Your task to perform on an android device: Open calendar and show me the third week of next month Image 0: 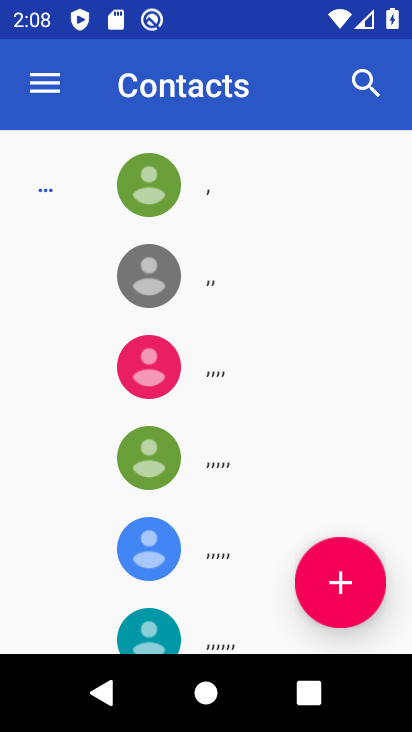
Step 0: press home button
Your task to perform on an android device: Open calendar and show me the third week of next month Image 1: 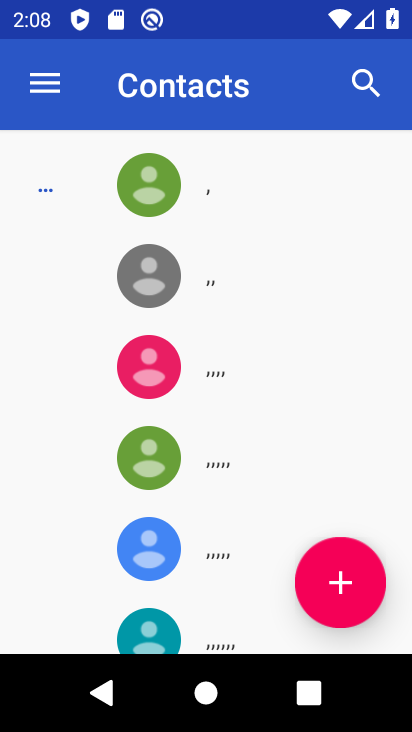
Step 1: press home button
Your task to perform on an android device: Open calendar and show me the third week of next month Image 2: 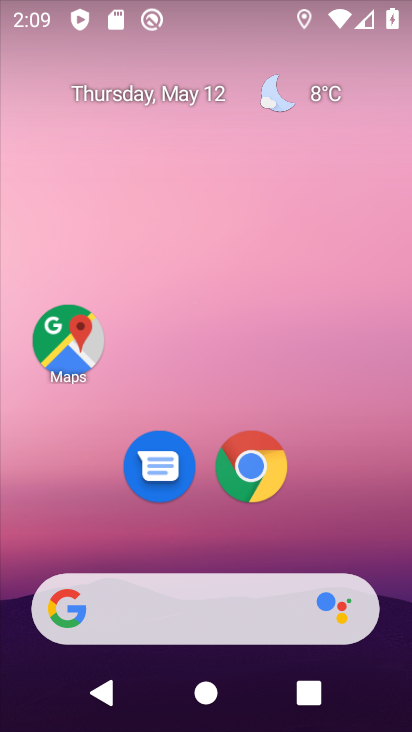
Step 2: drag from (347, 444) to (276, 142)
Your task to perform on an android device: Open calendar and show me the third week of next month Image 3: 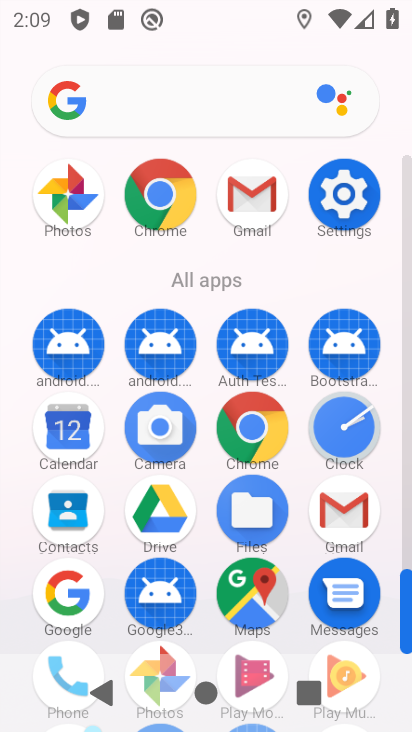
Step 3: drag from (207, 641) to (206, 176)
Your task to perform on an android device: Open calendar and show me the third week of next month Image 4: 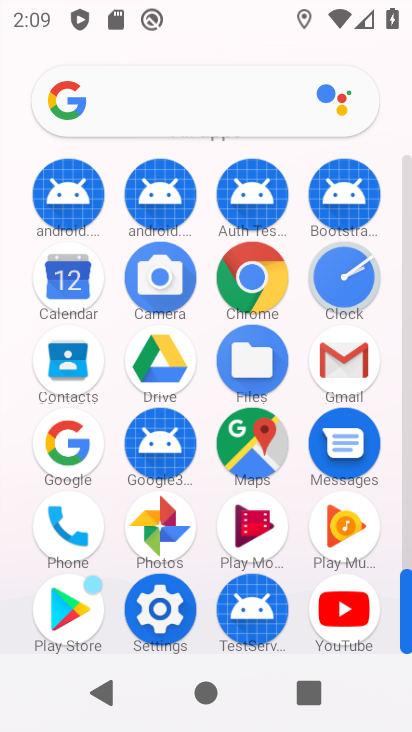
Step 4: click (64, 297)
Your task to perform on an android device: Open calendar and show me the third week of next month Image 5: 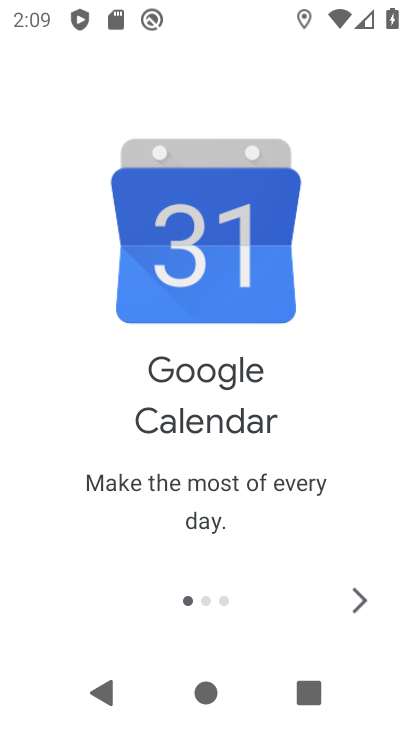
Step 5: click (363, 593)
Your task to perform on an android device: Open calendar and show me the third week of next month Image 6: 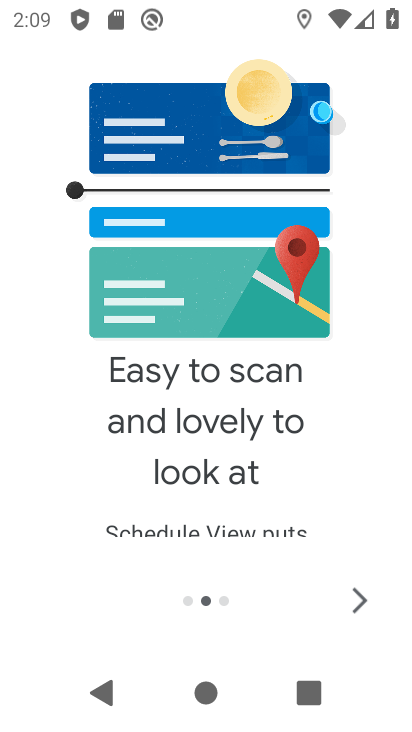
Step 6: click (363, 597)
Your task to perform on an android device: Open calendar and show me the third week of next month Image 7: 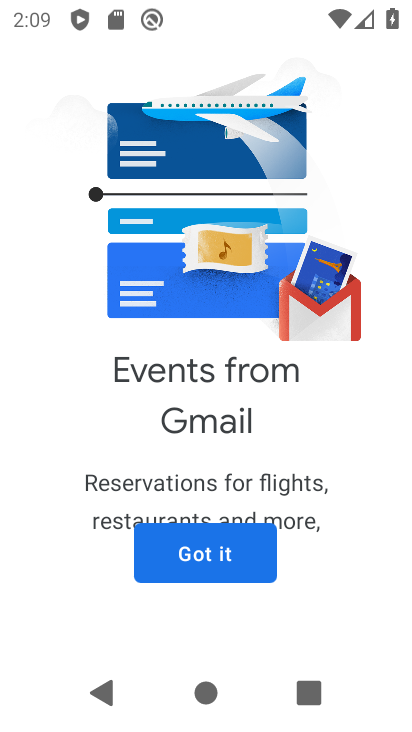
Step 7: click (165, 559)
Your task to perform on an android device: Open calendar and show me the third week of next month Image 8: 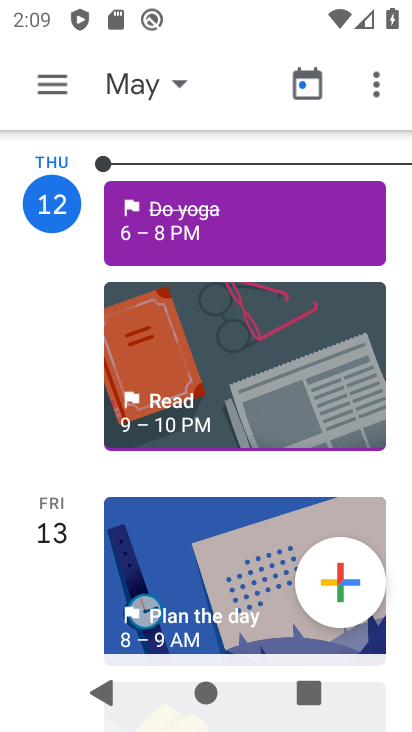
Step 8: click (137, 79)
Your task to perform on an android device: Open calendar and show me the third week of next month Image 9: 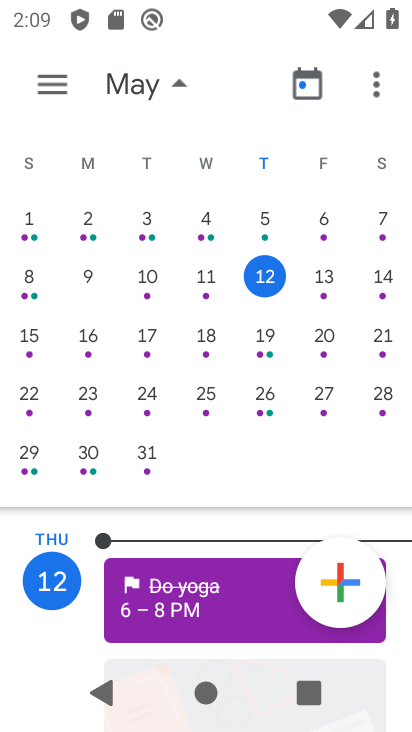
Step 9: drag from (384, 343) to (12, 312)
Your task to perform on an android device: Open calendar and show me the third week of next month Image 10: 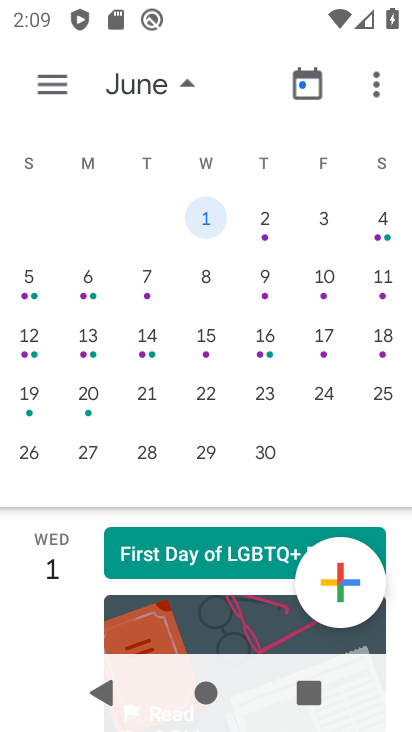
Step 10: click (30, 333)
Your task to perform on an android device: Open calendar and show me the third week of next month Image 11: 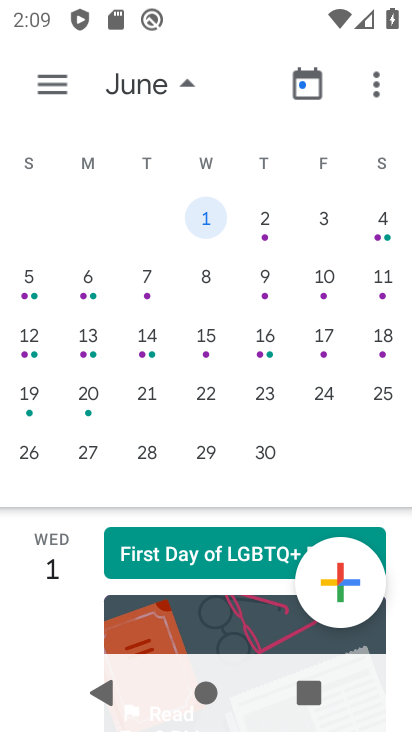
Step 11: click (28, 334)
Your task to perform on an android device: Open calendar and show me the third week of next month Image 12: 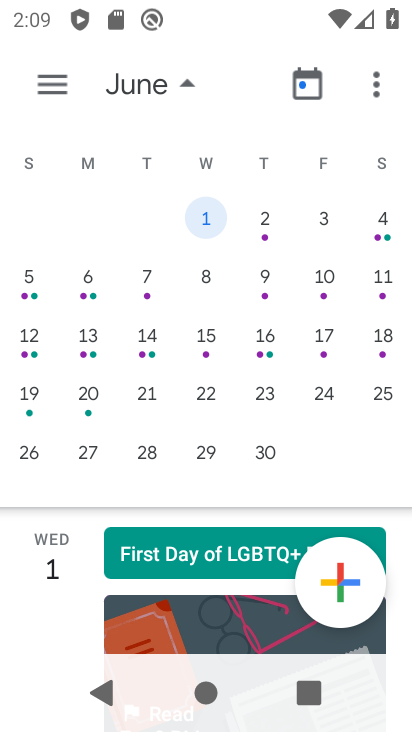
Step 12: click (33, 339)
Your task to perform on an android device: Open calendar and show me the third week of next month Image 13: 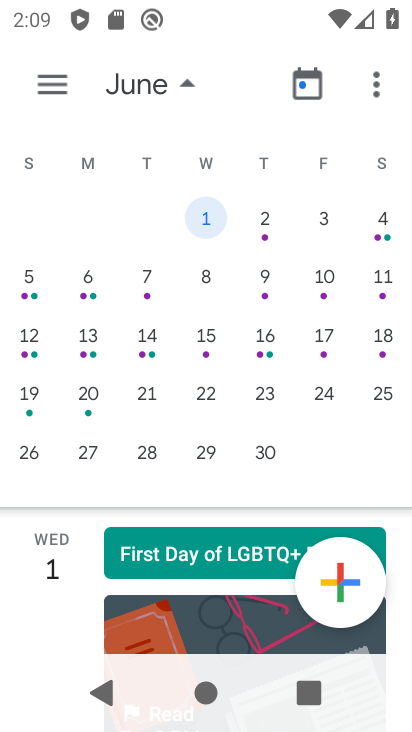
Step 13: click (47, 76)
Your task to perform on an android device: Open calendar and show me the third week of next month Image 14: 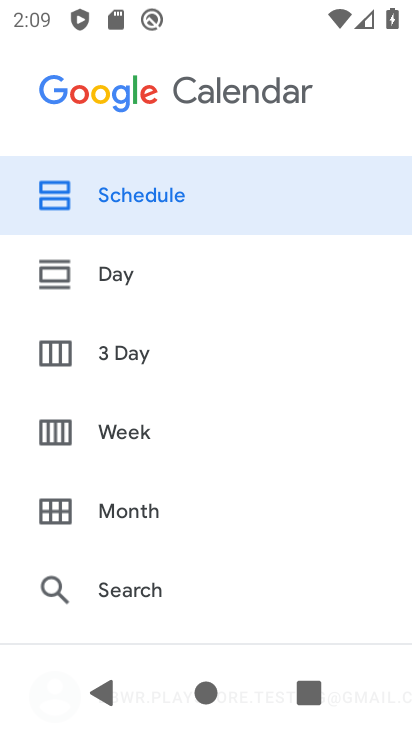
Step 14: click (128, 416)
Your task to perform on an android device: Open calendar and show me the third week of next month Image 15: 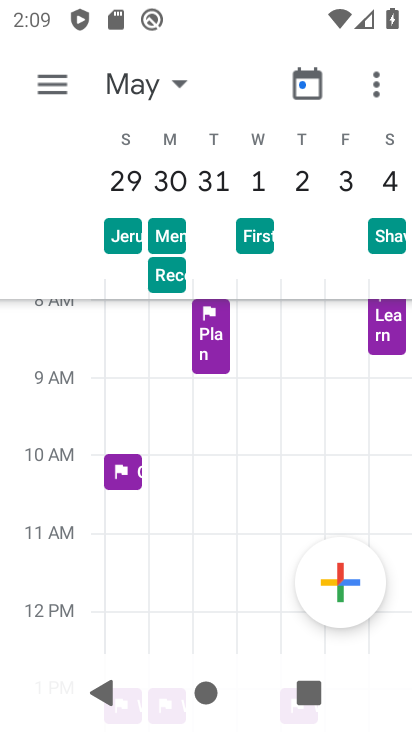
Step 15: task complete